Your task to perform on an android device: Open settings on Google Maps Image 0: 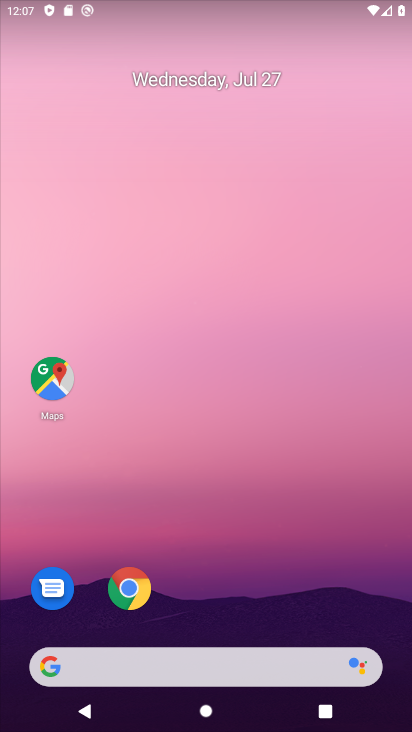
Step 0: click (129, 580)
Your task to perform on an android device: Open settings on Google Maps Image 1: 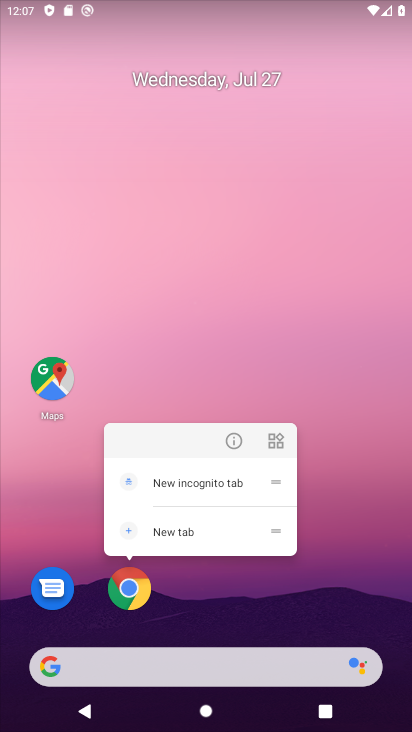
Step 1: click (61, 383)
Your task to perform on an android device: Open settings on Google Maps Image 2: 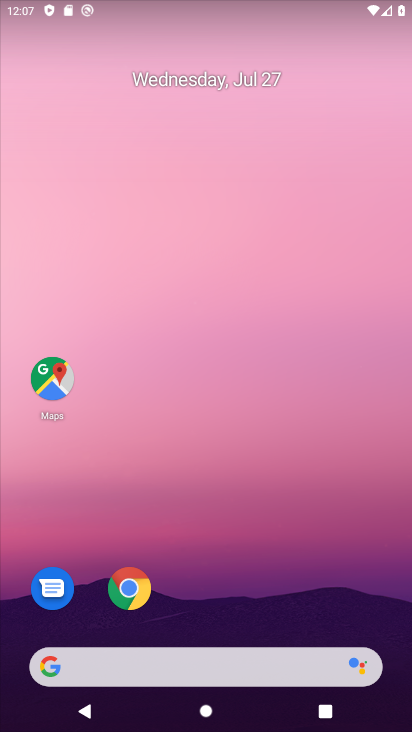
Step 2: click (55, 391)
Your task to perform on an android device: Open settings on Google Maps Image 3: 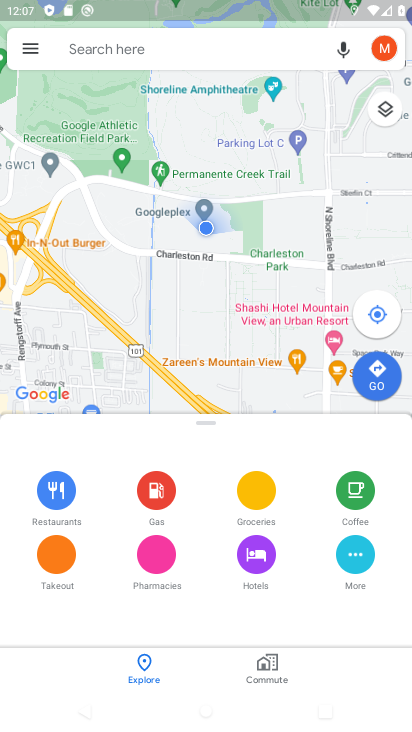
Step 3: click (40, 47)
Your task to perform on an android device: Open settings on Google Maps Image 4: 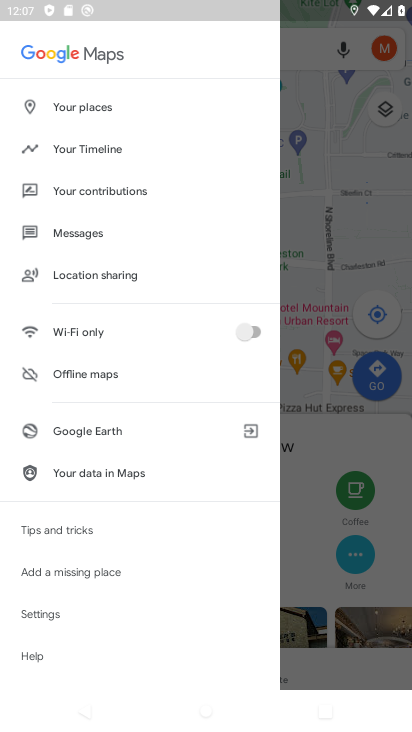
Step 4: click (40, 607)
Your task to perform on an android device: Open settings on Google Maps Image 5: 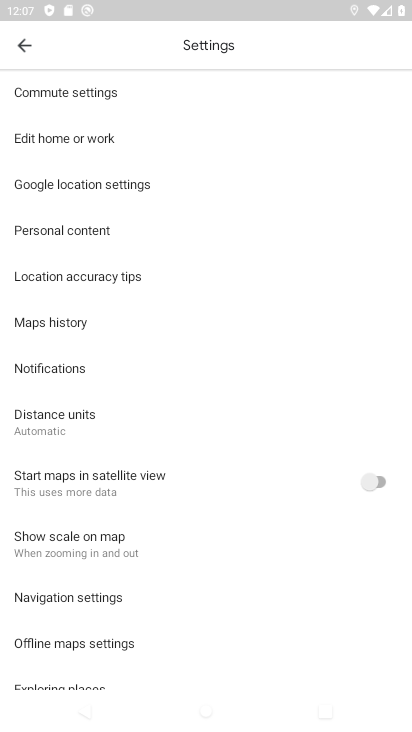
Step 5: task complete